Your task to perform on an android device: choose inbox layout in the gmail app Image 0: 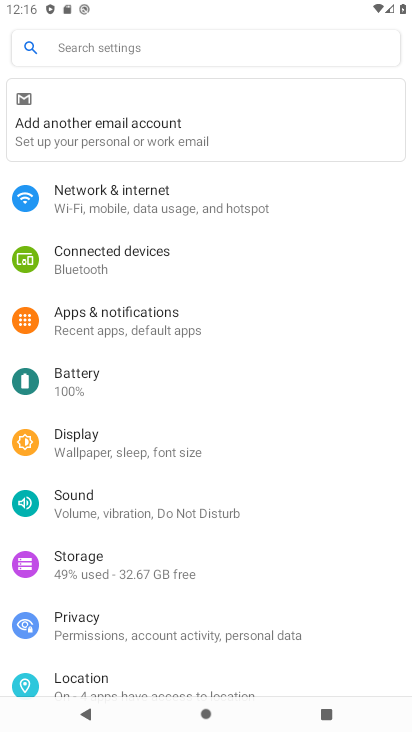
Step 0: press home button
Your task to perform on an android device: choose inbox layout in the gmail app Image 1: 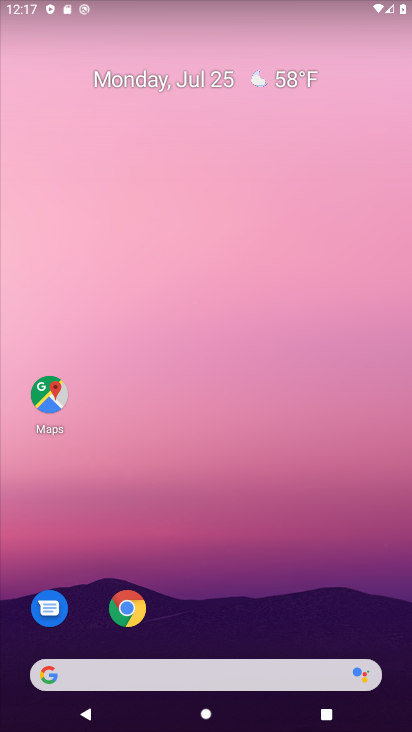
Step 1: drag from (338, 562) to (285, 4)
Your task to perform on an android device: choose inbox layout in the gmail app Image 2: 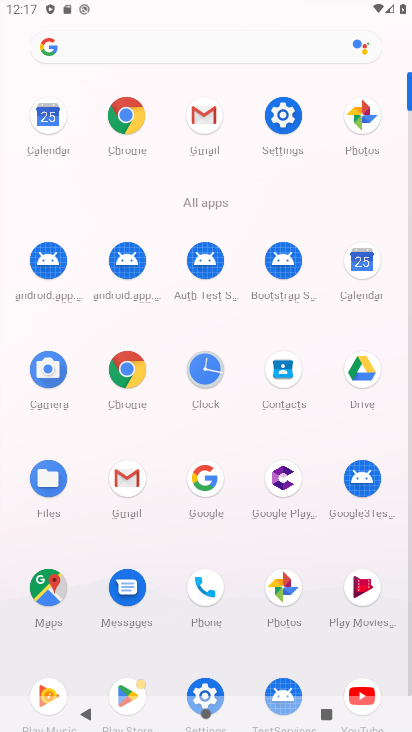
Step 2: click (213, 116)
Your task to perform on an android device: choose inbox layout in the gmail app Image 3: 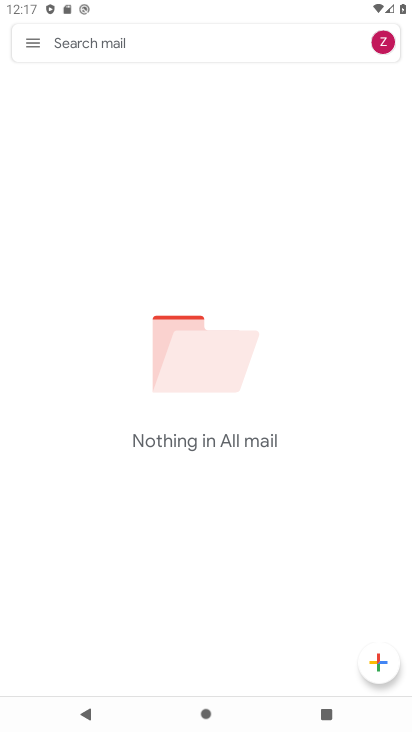
Step 3: click (43, 50)
Your task to perform on an android device: choose inbox layout in the gmail app Image 4: 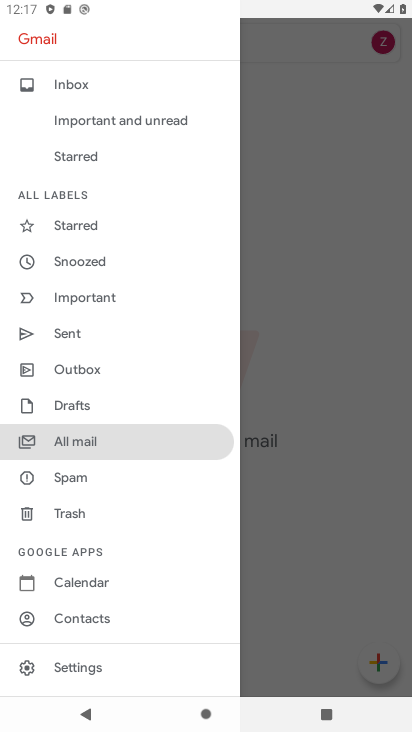
Step 4: click (92, 662)
Your task to perform on an android device: choose inbox layout in the gmail app Image 5: 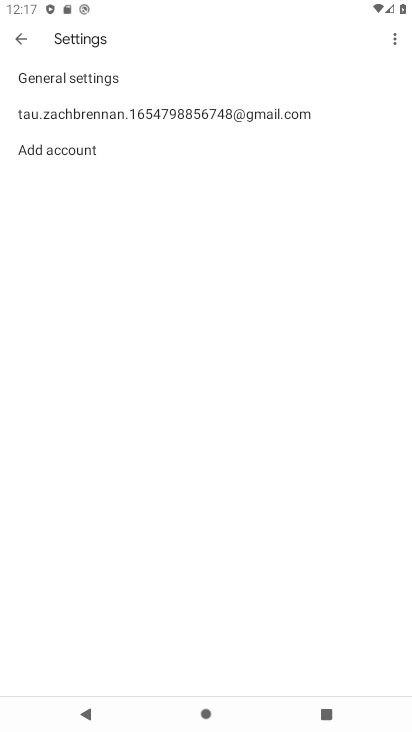
Step 5: click (202, 118)
Your task to perform on an android device: choose inbox layout in the gmail app Image 6: 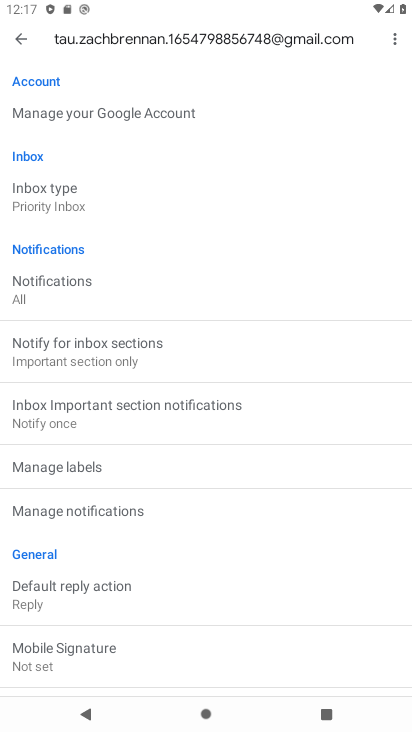
Step 6: click (70, 211)
Your task to perform on an android device: choose inbox layout in the gmail app Image 7: 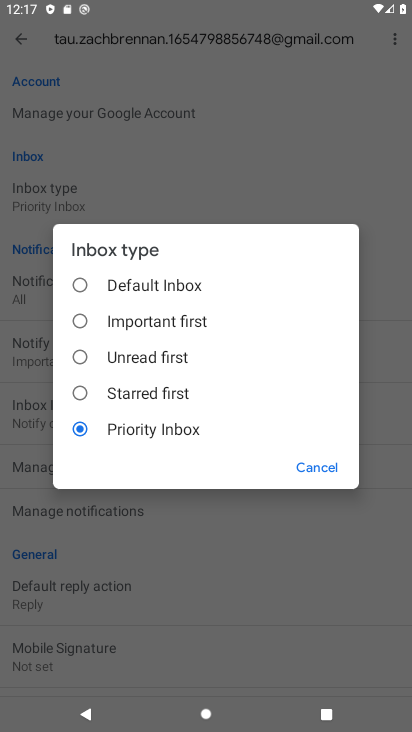
Step 7: task complete